Your task to perform on an android device: Open CNN.com Image 0: 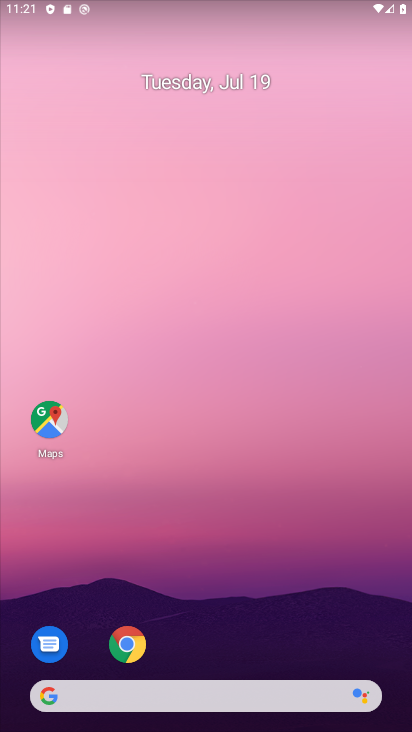
Step 0: click (243, 9)
Your task to perform on an android device: Open CNN.com Image 1: 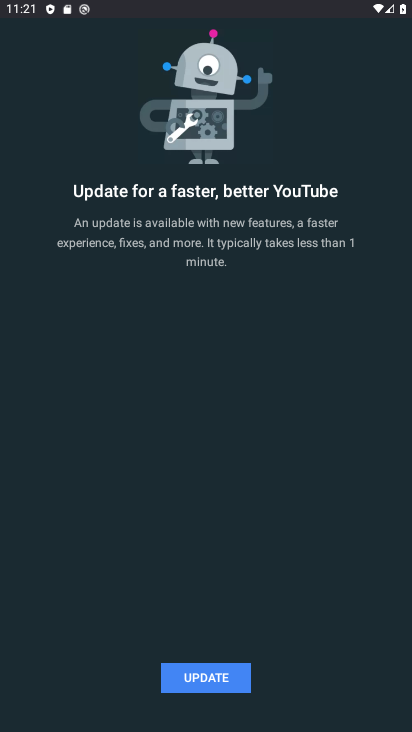
Step 1: press home button
Your task to perform on an android device: Open CNN.com Image 2: 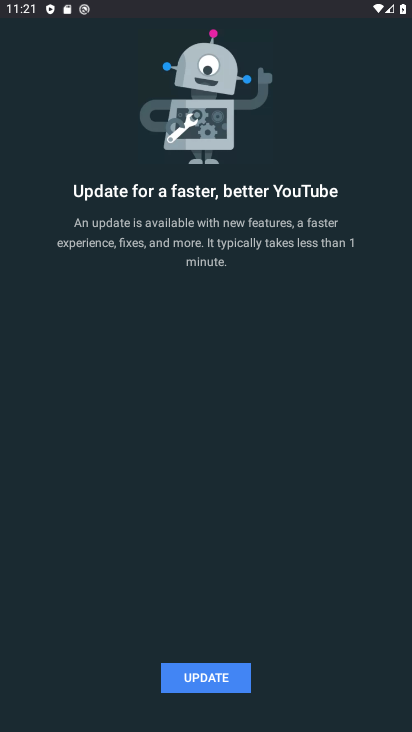
Step 2: press home button
Your task to perform on an android device: Open CNN.com Image 3: 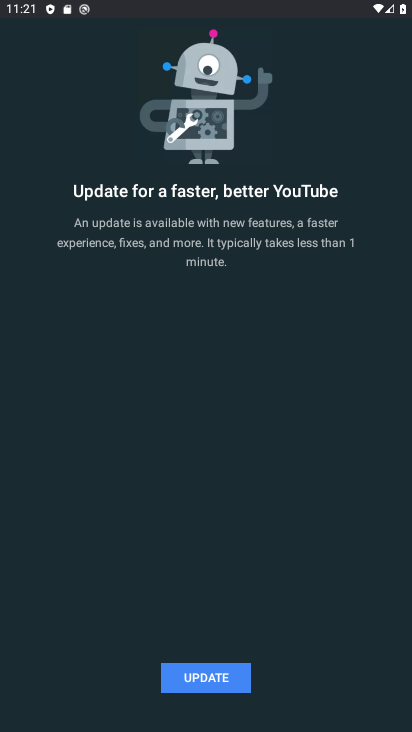
Step 3: drag from (263, 104) to (398, 54)
Your task to perform on an android device: Open CNN.com Image 4: 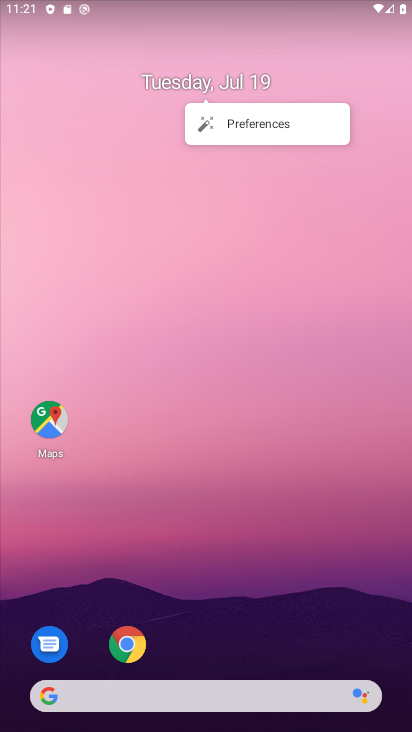
Step 4: drag from (190, 676) to (278, 66)
Your task to perform on an android device: Open CNN.com Image 5: 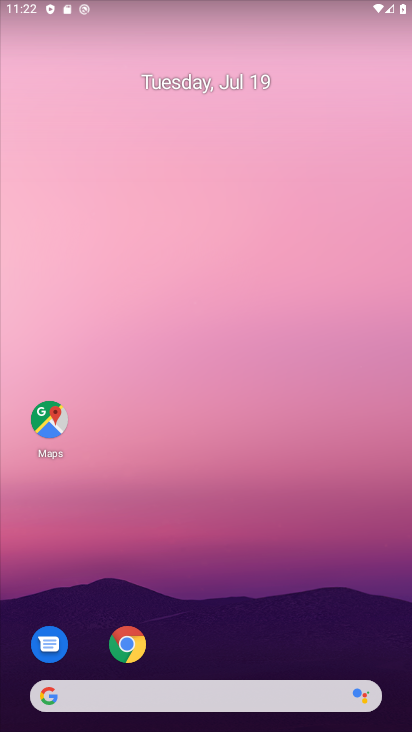
Step 5: drag from (223, 667) to (4, 159)
Your task to perform on an android device: Open CNN.com Image 6: 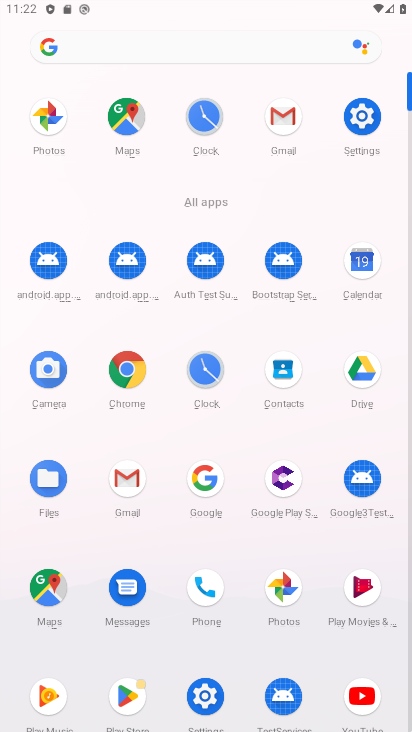
Step 6: drag from (189, 632) to (353, 0)
Your task to perform on an android device: Open CNN.com Image 7: 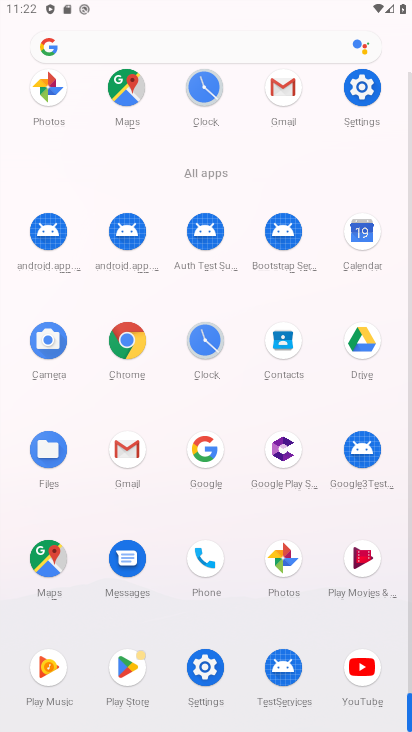
Step 7: click (94, 43)
Your task to perform on an android device: Open CNN.com Image 8: 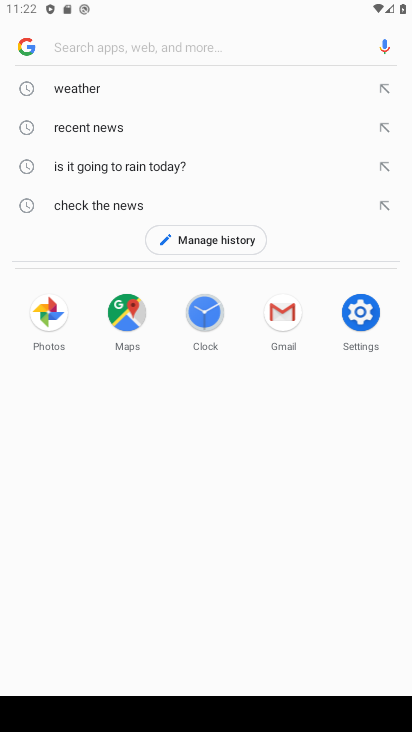
Step 8: type "CNN"
Your task to perform on an android device: Open CNN.com Image 9: 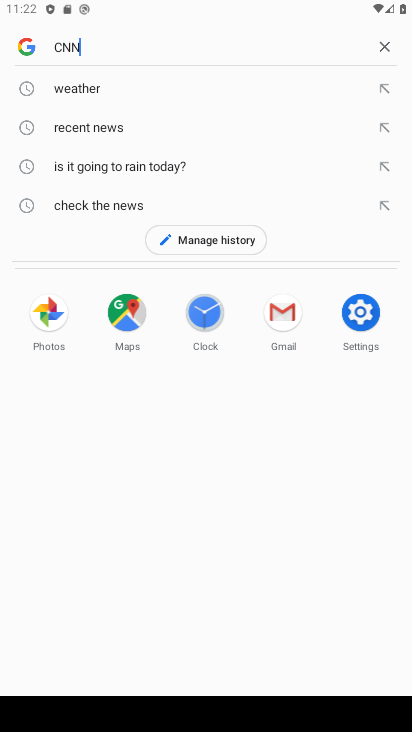
Step 9: type ""
Your task to perform on an android device: Open CNN.com Image 10: 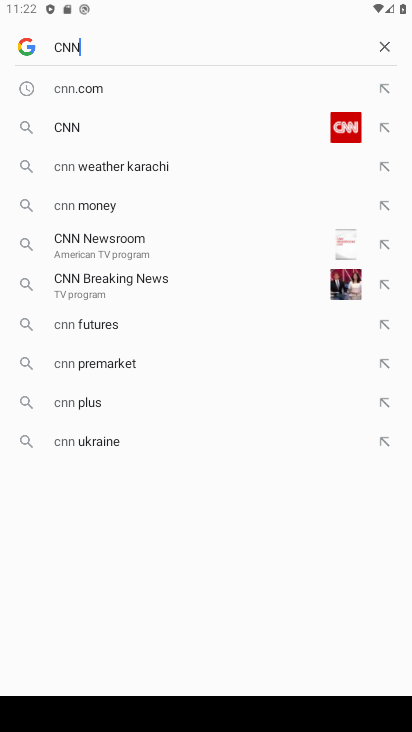
Step 10: click (105, 87)
Your task to perform on an android device: Open CNN.com Image 11: 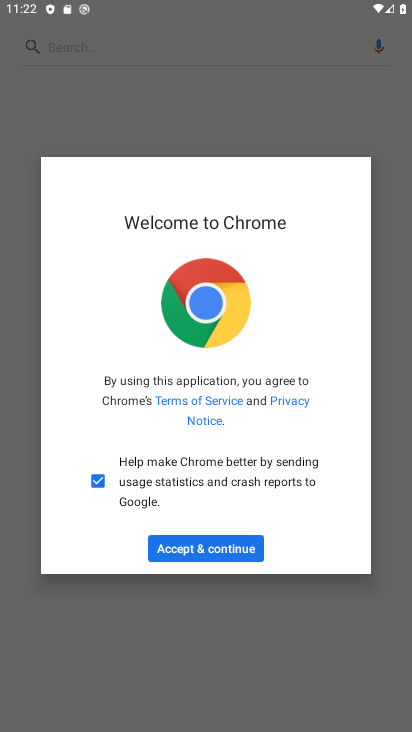
Step 11: click (200, 547)
Your task to perform on an android device: Open CNN.com Image 12: 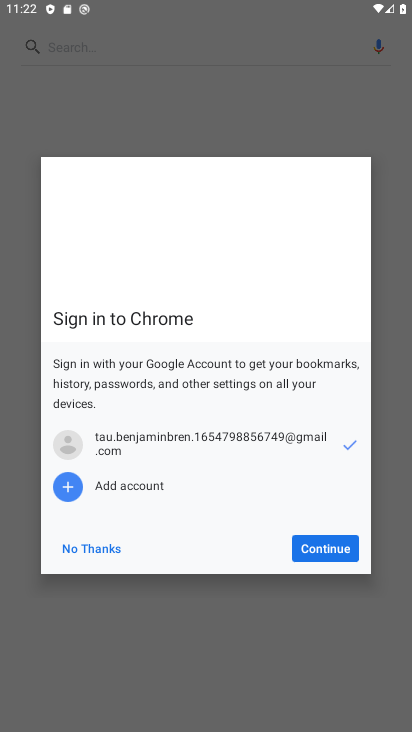
Step 12: click (332, 552)
Your task to perform on an android device: Open CNN.com Image 13: 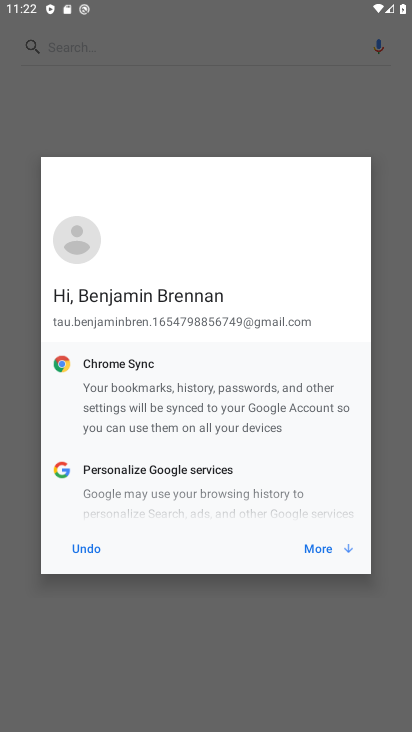
Step 13: click (335, 550)
Your task to perform on an android device: Open CNN.com Image 14: 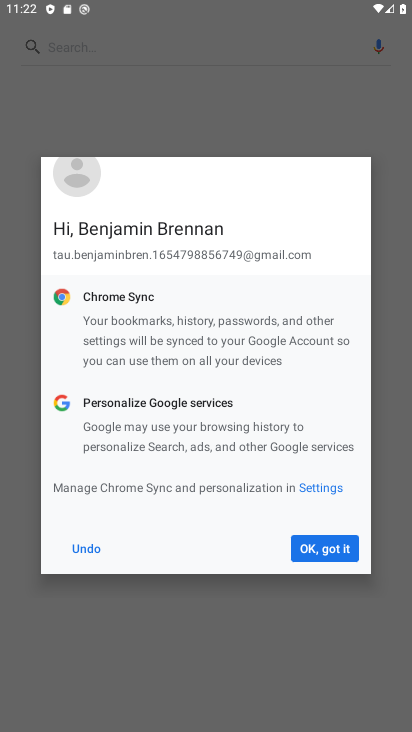
Step 14: click (335, 550)
Your task to perform on an android device: Open CNN.com Image 15: 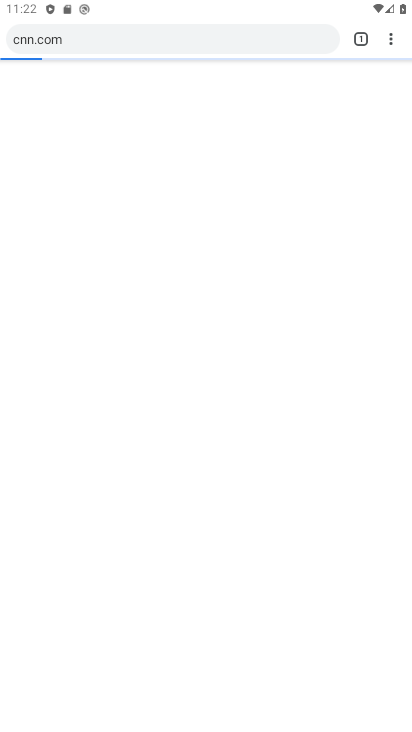
Step 15: task complete